Your task to perform on an android device: Is it going to rain this weekend? Image 0: 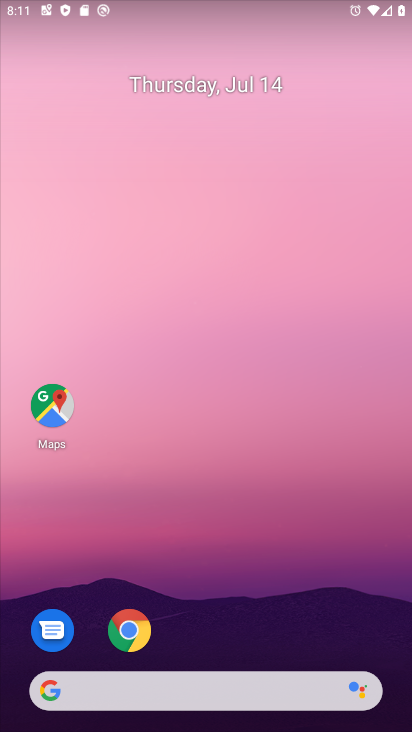
Step 0: drag from (200, 723) to (201, 288)
Your task to perform on an android device: Is it going to rain this weekend? Image 1: 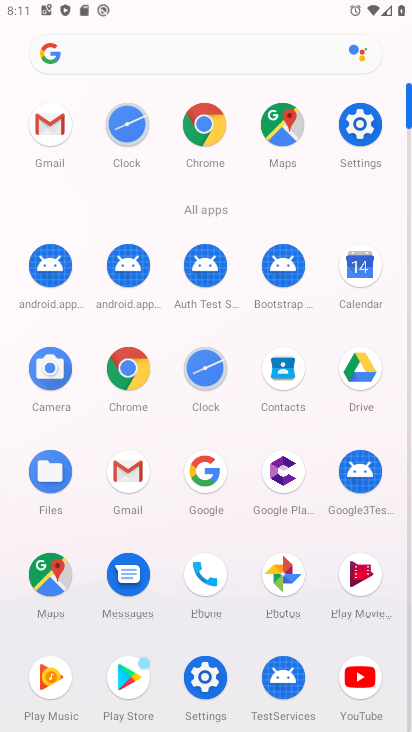
Step 1: click (209, 473)
Your task to perform on an android device: Is it going to rain this weekend? Image 2: 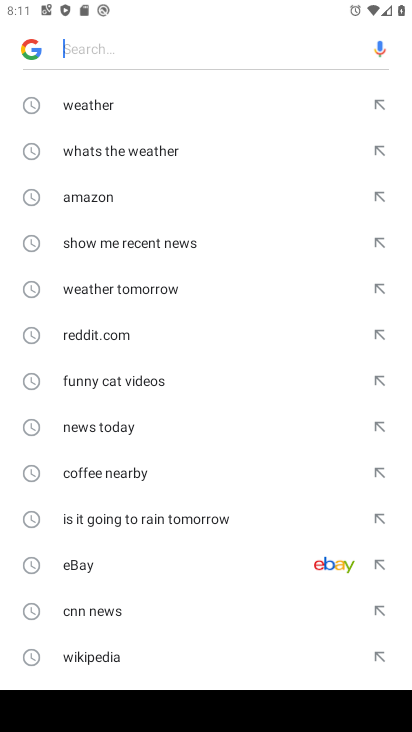
Step 2: click (85, 105)
Your task to perform on an android device: Is it going to rain this weekend? Image 3: 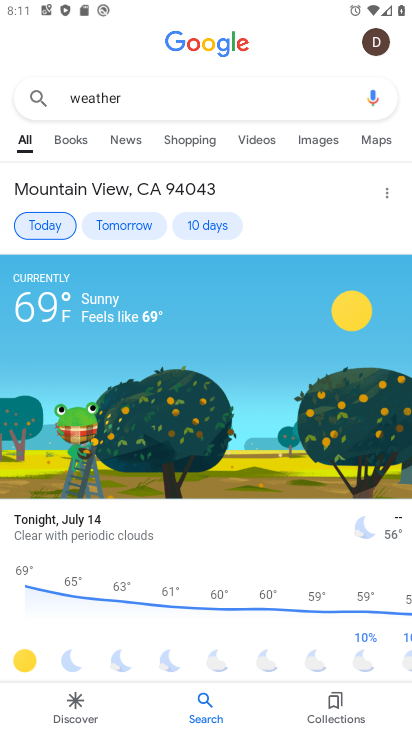
Step 3: click (204, 225)
Your task to perform on an android device: Is it going to rain this weekend? Image 4: 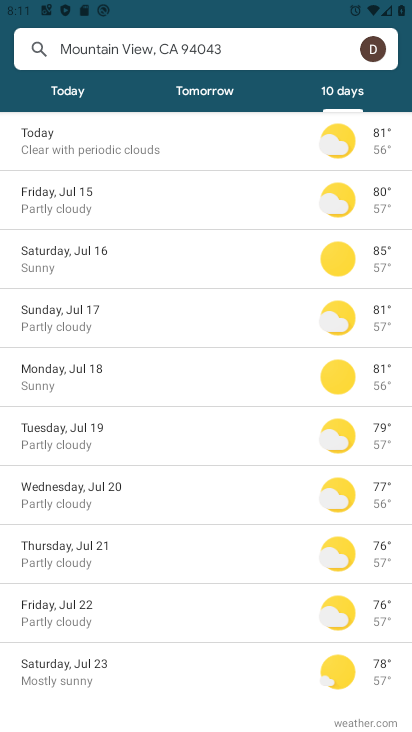
Step 4: click (55, 252)
Your task to perform on an android device: Is it going to rain this weekend? Image 5: 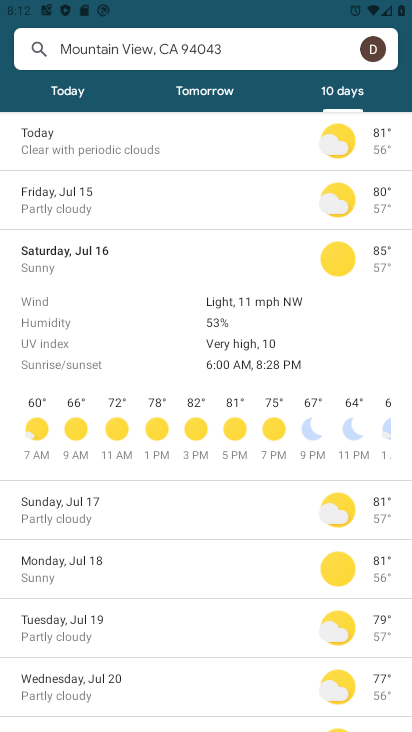
Step 5: task complete